Your task to perform on an android device: Open calendar and show me the third week of next month Image 0: 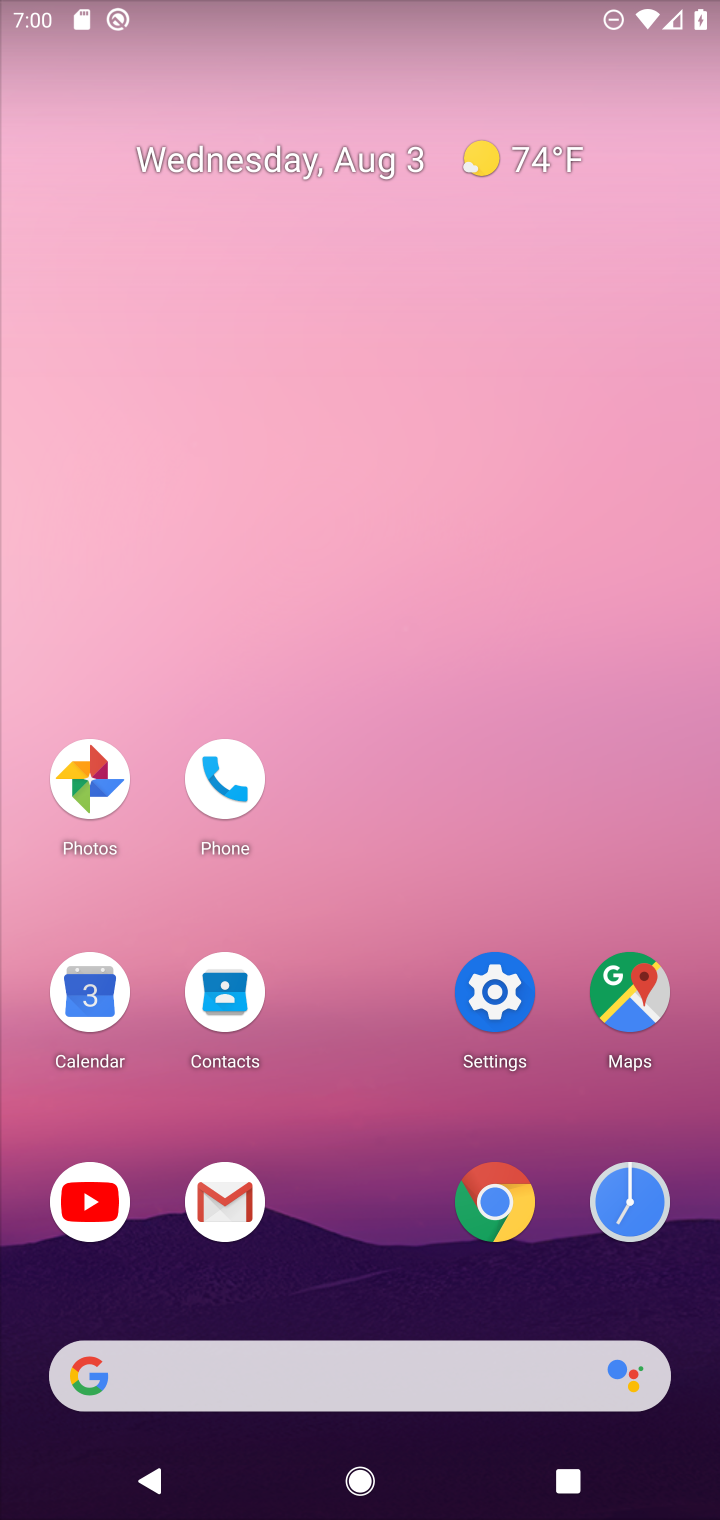
Step 0: press home button
Your task to perform on an android device: Open calendar and show me the third week of next month Image 1: 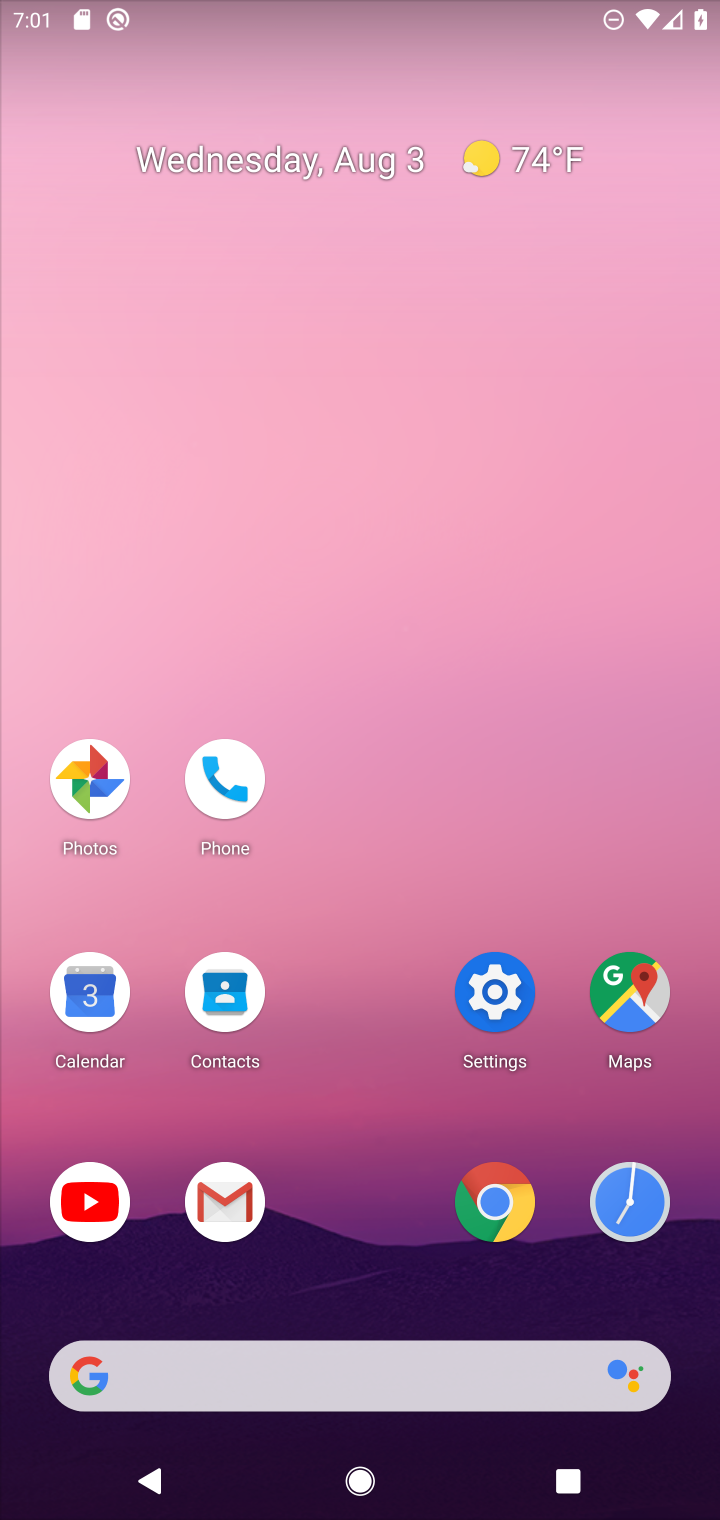
Step 1: click (88, 990)
Your task to perform on an android device: Open calendar and show me the third week of next month Image 2: 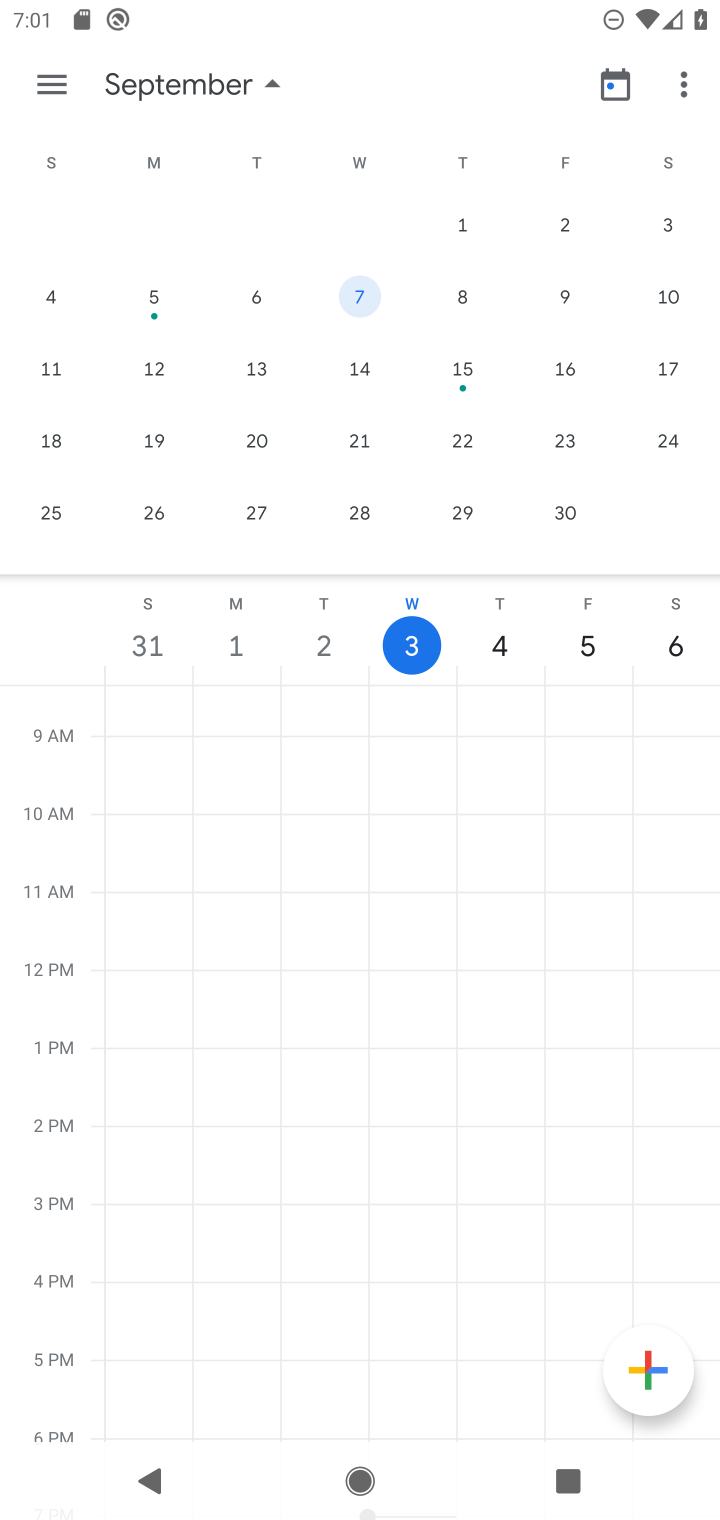
Step 2: click (364, 362)
Your task to perform on an android device: Open calendar and show me the third week of next month Image 3: 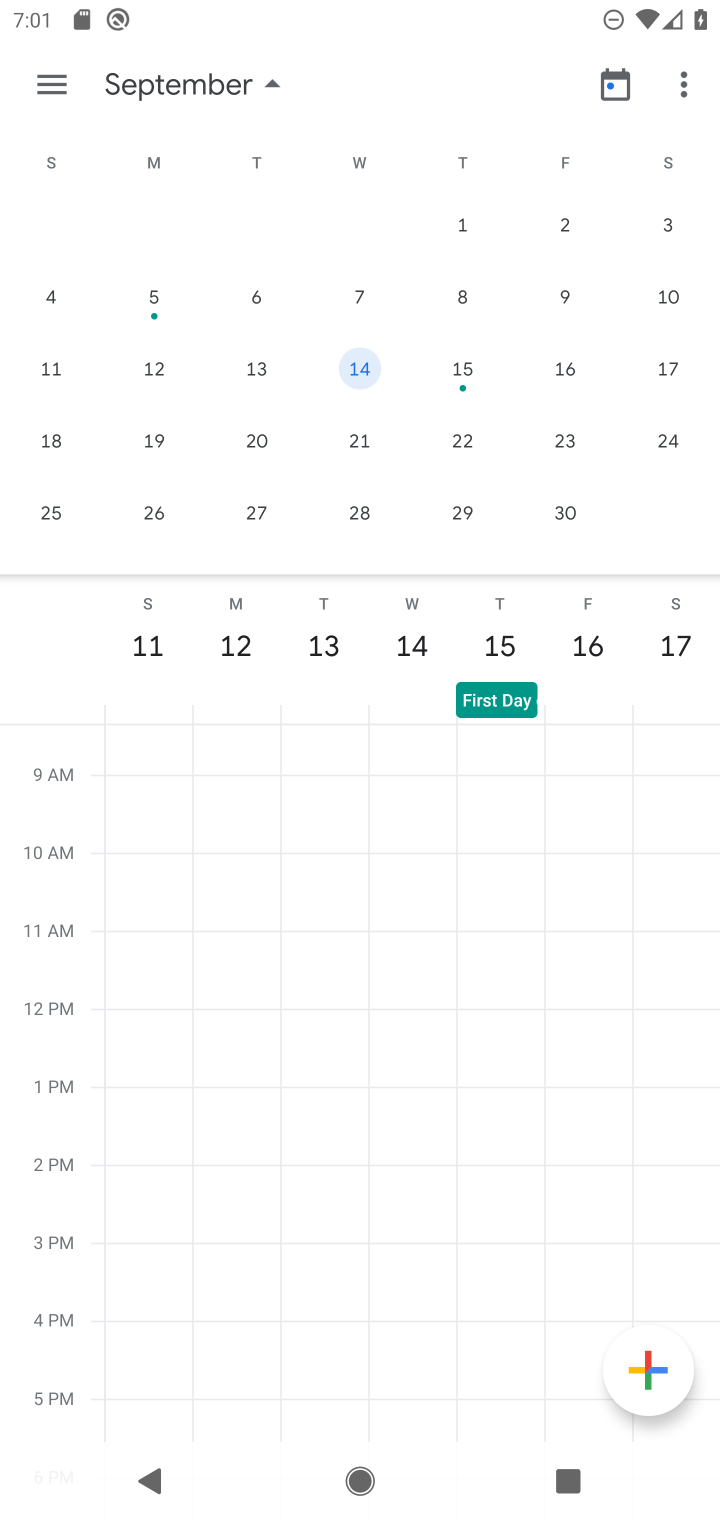
Step 3: task complete